Your task to perform on an android device: Go to battery settings Image 0: 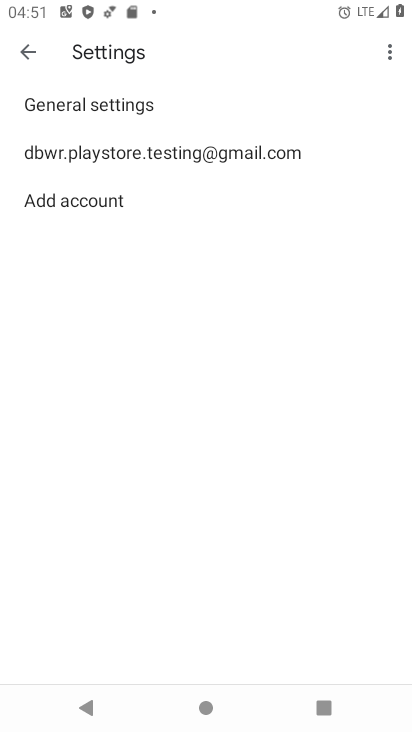
Step 0: press home button
Your task to perform on an android device: Go to battery settings Image 1: 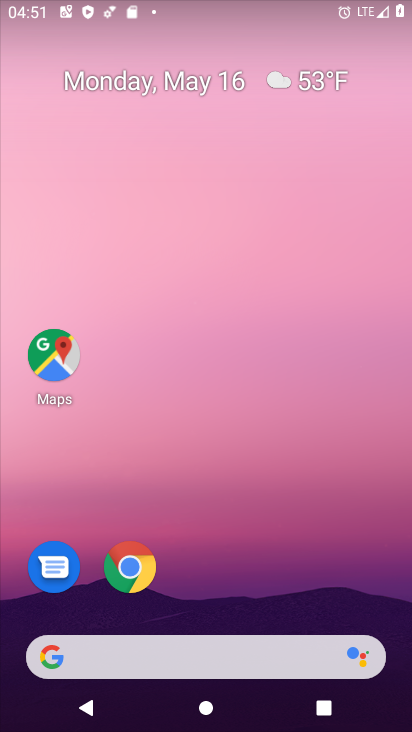
Step 1: drag from (263, 657) to (241, 0)
Your task to perform on an android device: Go to battery settings Image 2: 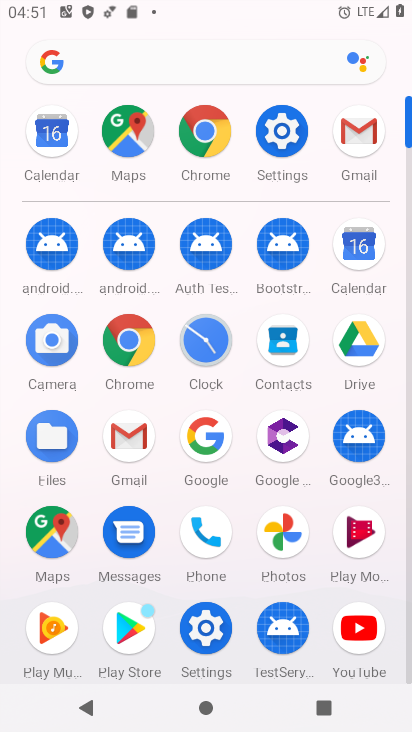
Step 2: click (288, 130)
Your task to perform on an android device: Go to battery settings Image 3: 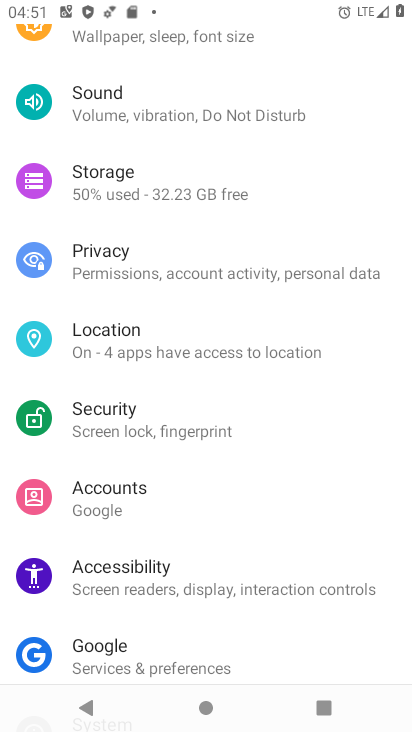
Step 3: drag from (284, 158) to (330, 550)
Your task to perform on an android device: Go to battery settings Image 4: 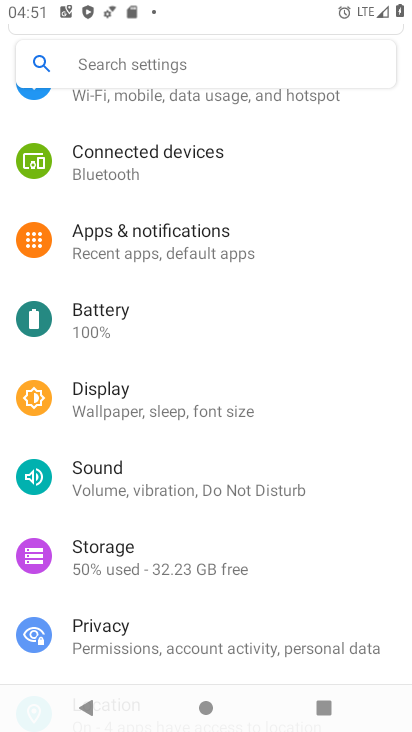
Step 4: click (179, 315)
Your task to perform on an android device: Go to battery settings Image 5: 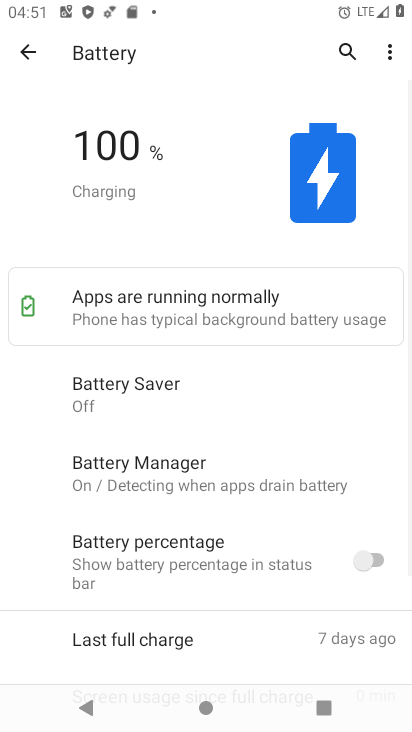
Step 5: task complete